Your task to perform on an android device: Go to accessibility settings Image 0: 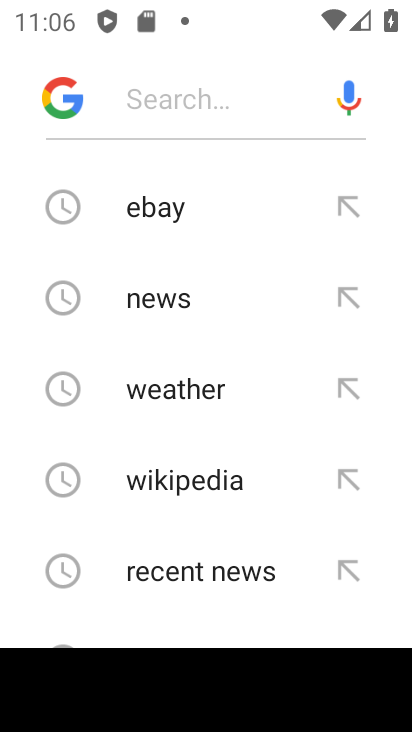
Step 0: press back button
Your task to perform on an android device: Go to accessibility settings Image 1: 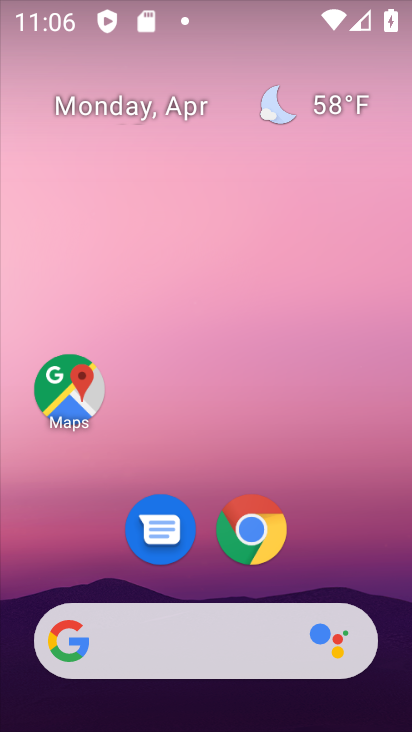
Step 1: drag from (376, 594) to (267, 47)
Your task to perform on an android device: Go to accessibility settings Image 2: 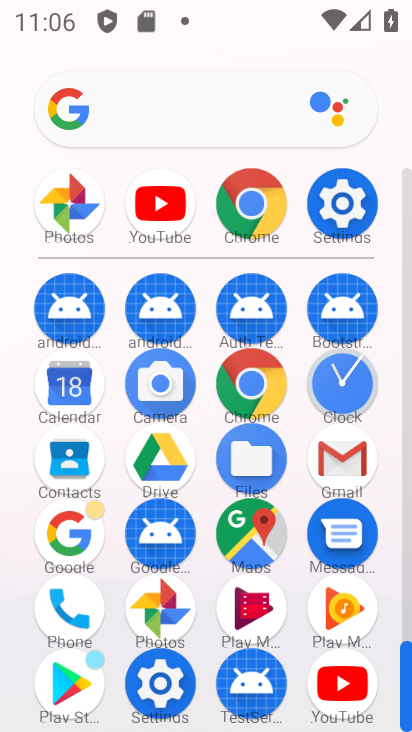
Step 2: click (333, 200)
Your task to perform on an android device: Go to accessibility settings Image 3: 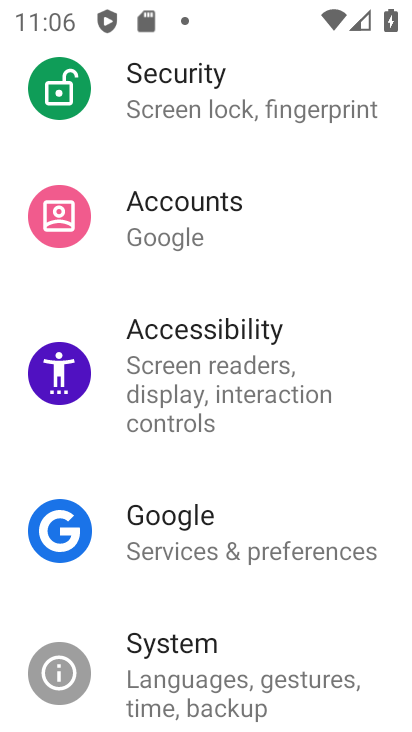
Step 3: click (237, 364)
Your task to perform on an android device: Go to accessibility settings Image 4: 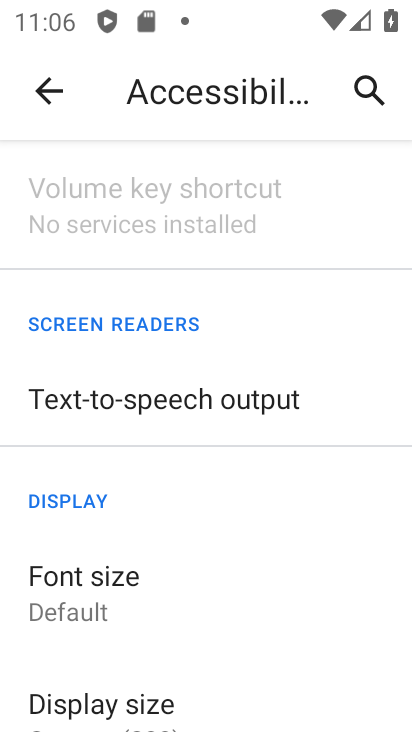
Step 4: task complete